Your task to perform on an android device: Open Chrome and go to the settings page Image 0: 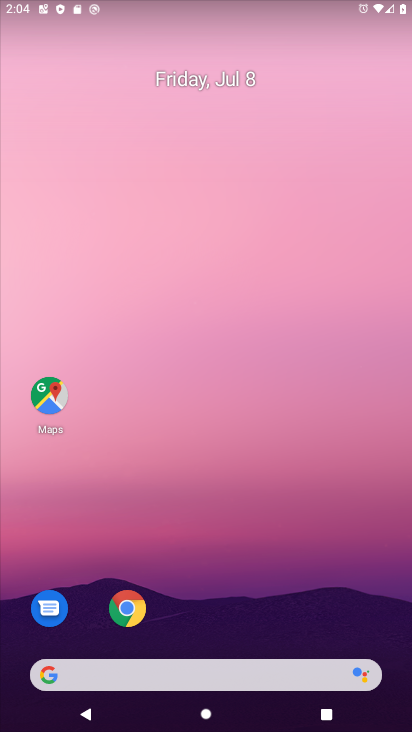
Step 0: click (128, 609)
Your task to perform on an android device: Open Chrome and go to the settings page Image 1: 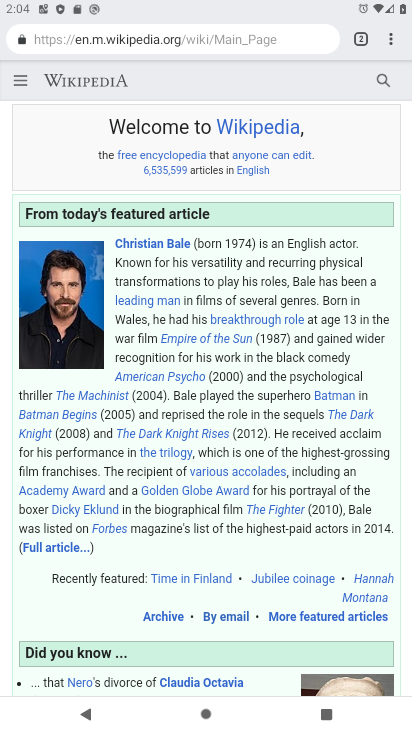
Step 1: click (394, 32)
Your task to perform on an android device: Open Chrome and go to the settings page Image 2: 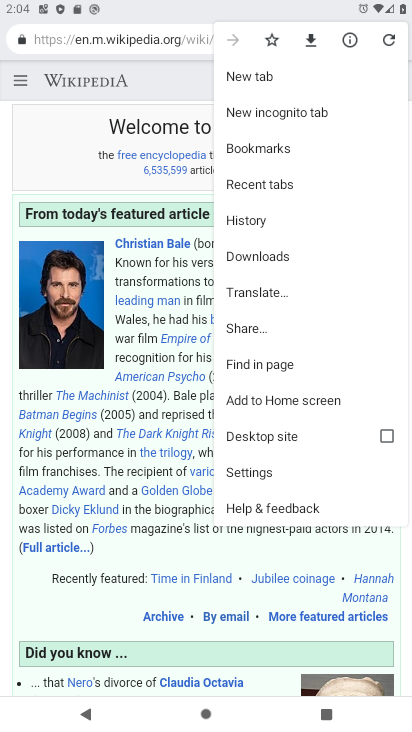
Step 2: click (260, 472)
Your task to perform on an android device: Open Chrome and go to the settings page Image 3: 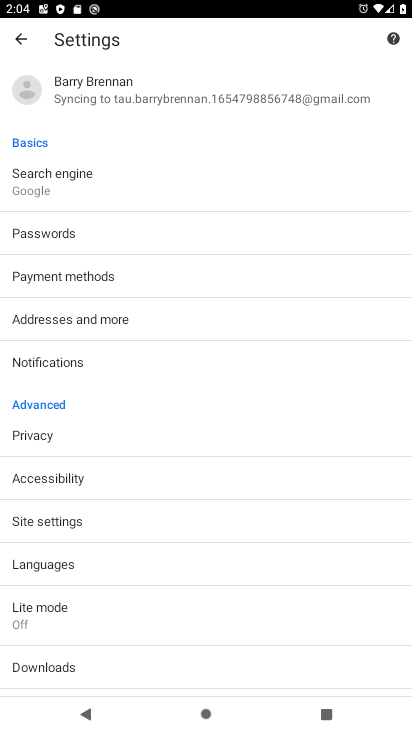
Step 3: task complete